Your task to perform on an android device: Clear all items from cart on walmart. Search for alienware aurora on walmart, select the first entry, and add it to the cart. Image 0: 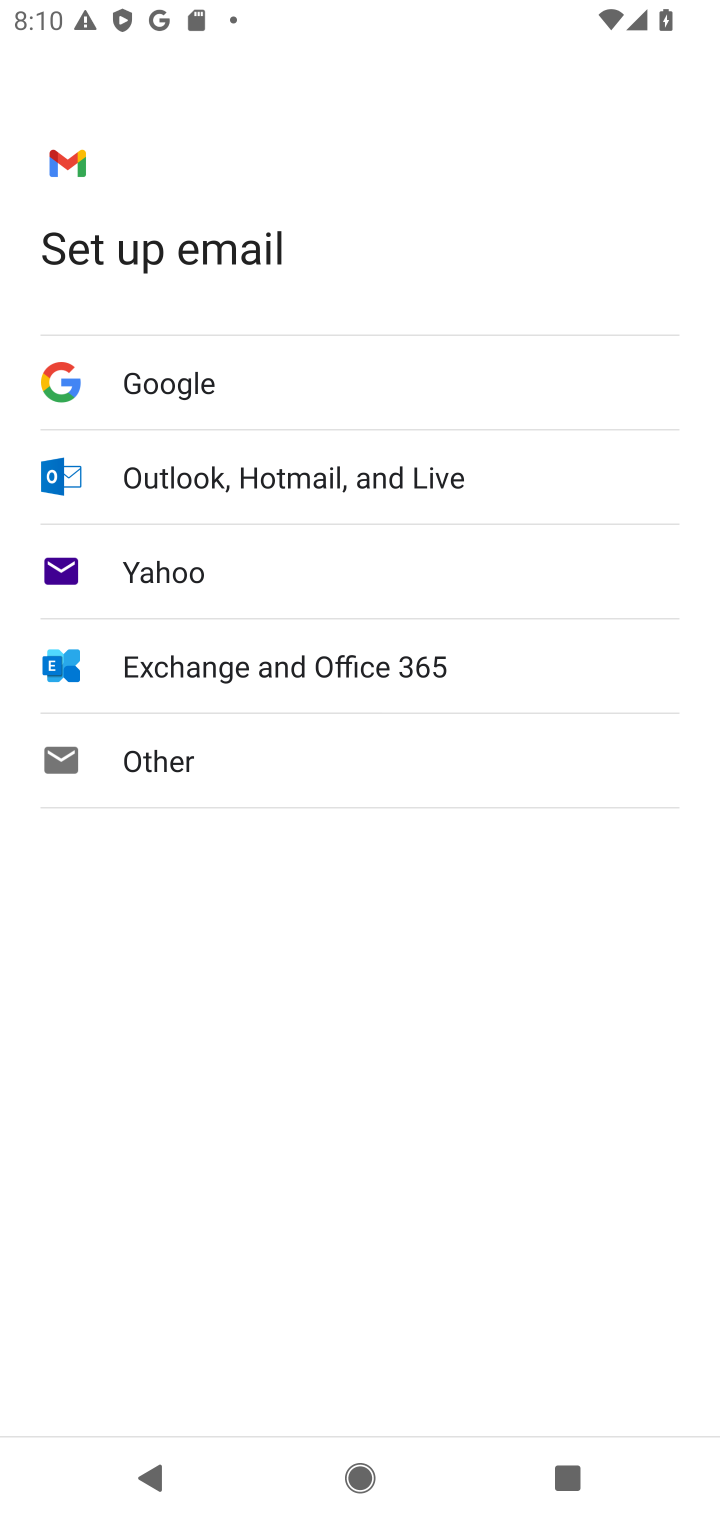
Step 0: press home button
Your task to perform on an android device: Clear all items from cart on walmart. Search for alienware aurora on walmart, select the first entry, and add it to the cart. Image 1: 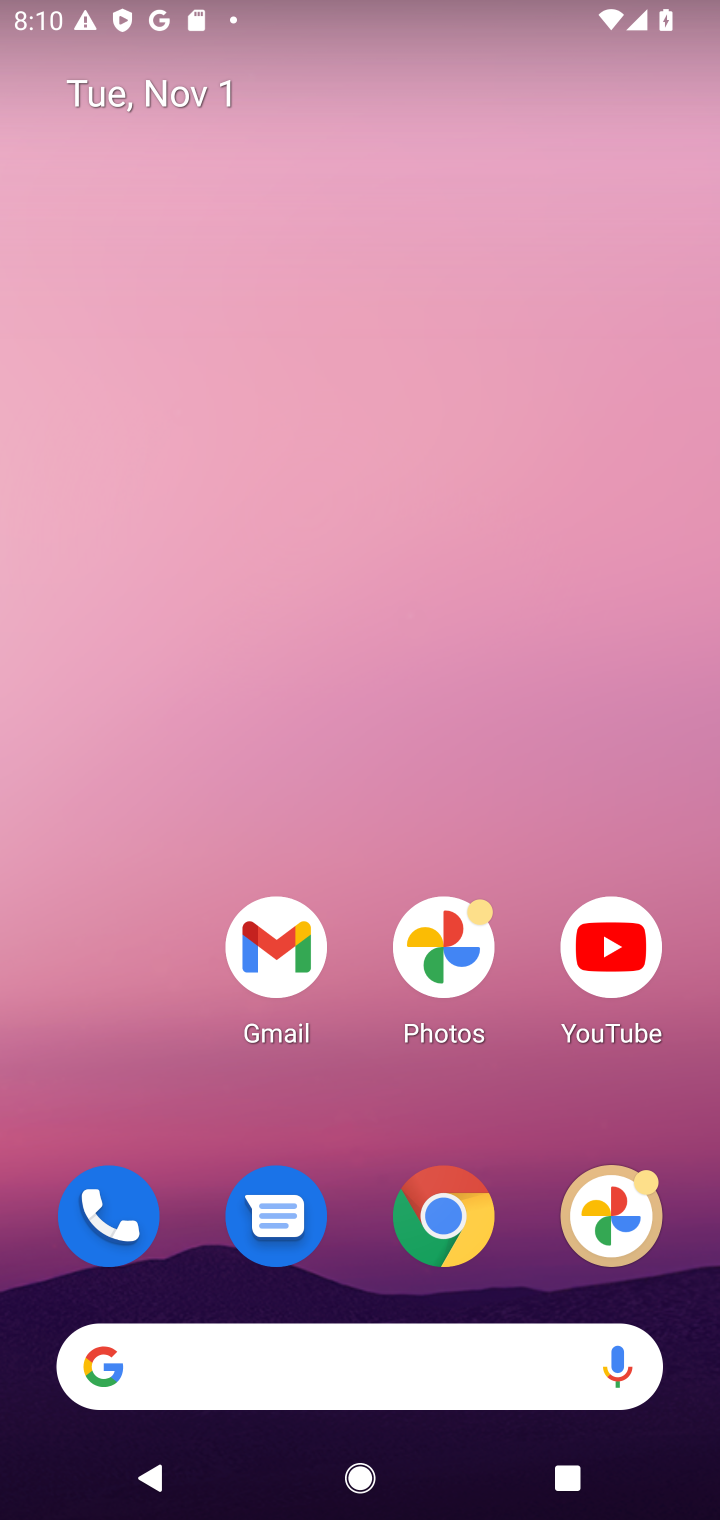
Step 1: click (455, 1212)
Your task to perform on an android device: Clear all items from cart on walmart. Search for alienware aurora on walmart, select the first entry, and add it to the cart. Image 2: 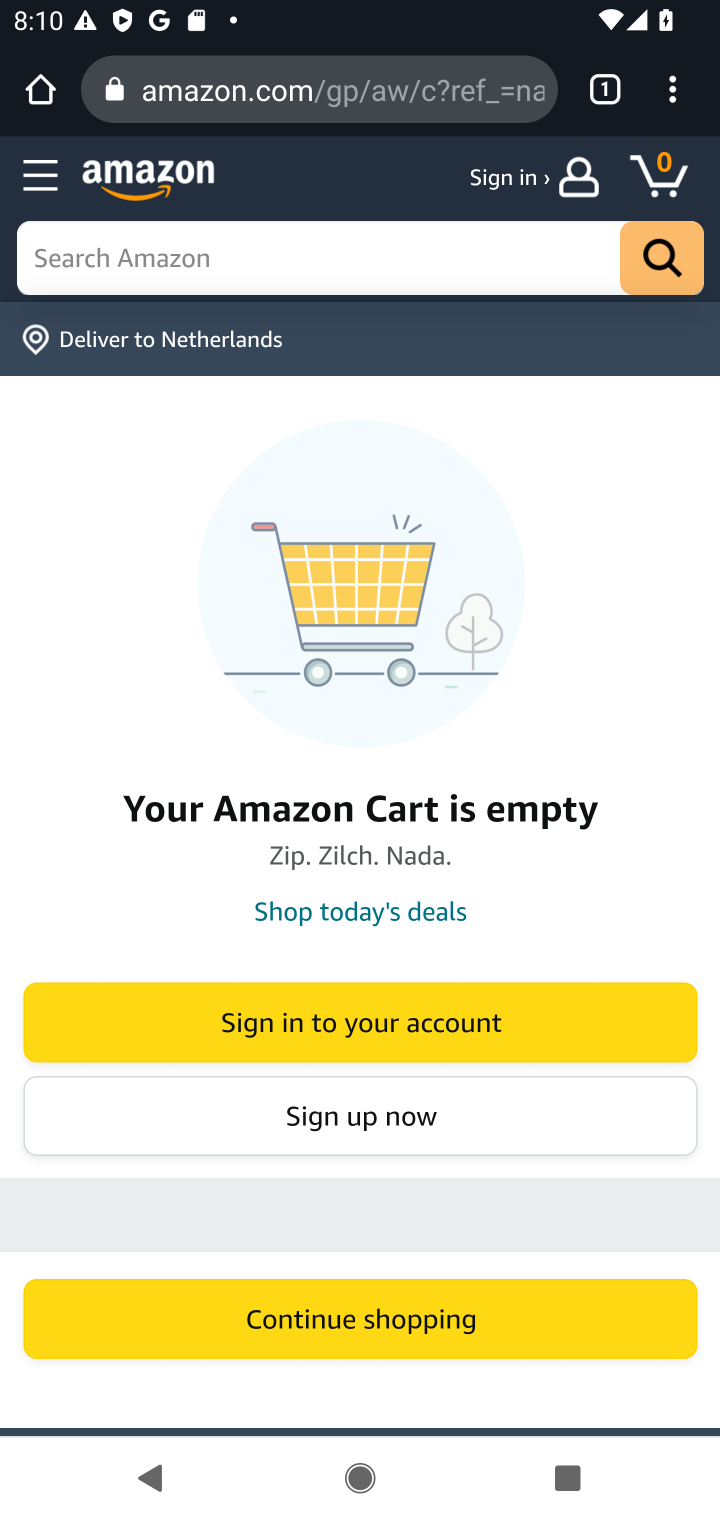
Step 2: click (306, 256)
Your task to perform on an android device: Clear all items from cart on walmart. Search for alienware aurora on walmart, select the first entry, and add it to the cart. Image 3: 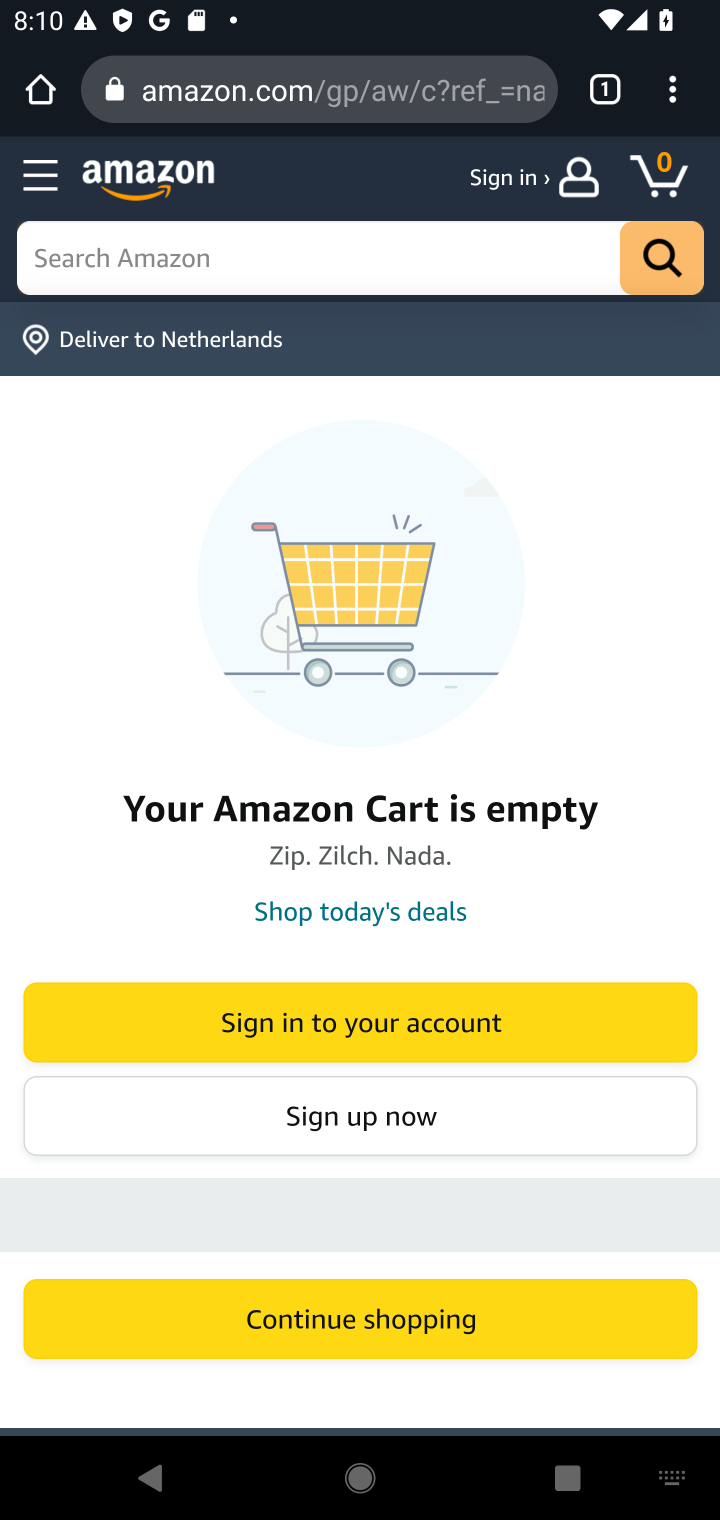
Step 3: click (329, 83)
Your task to perform on an android device: Clear all items from cart on walmart. Search for alienware aurora on walmart, select the first entry, and add it to the cart. Image 4: 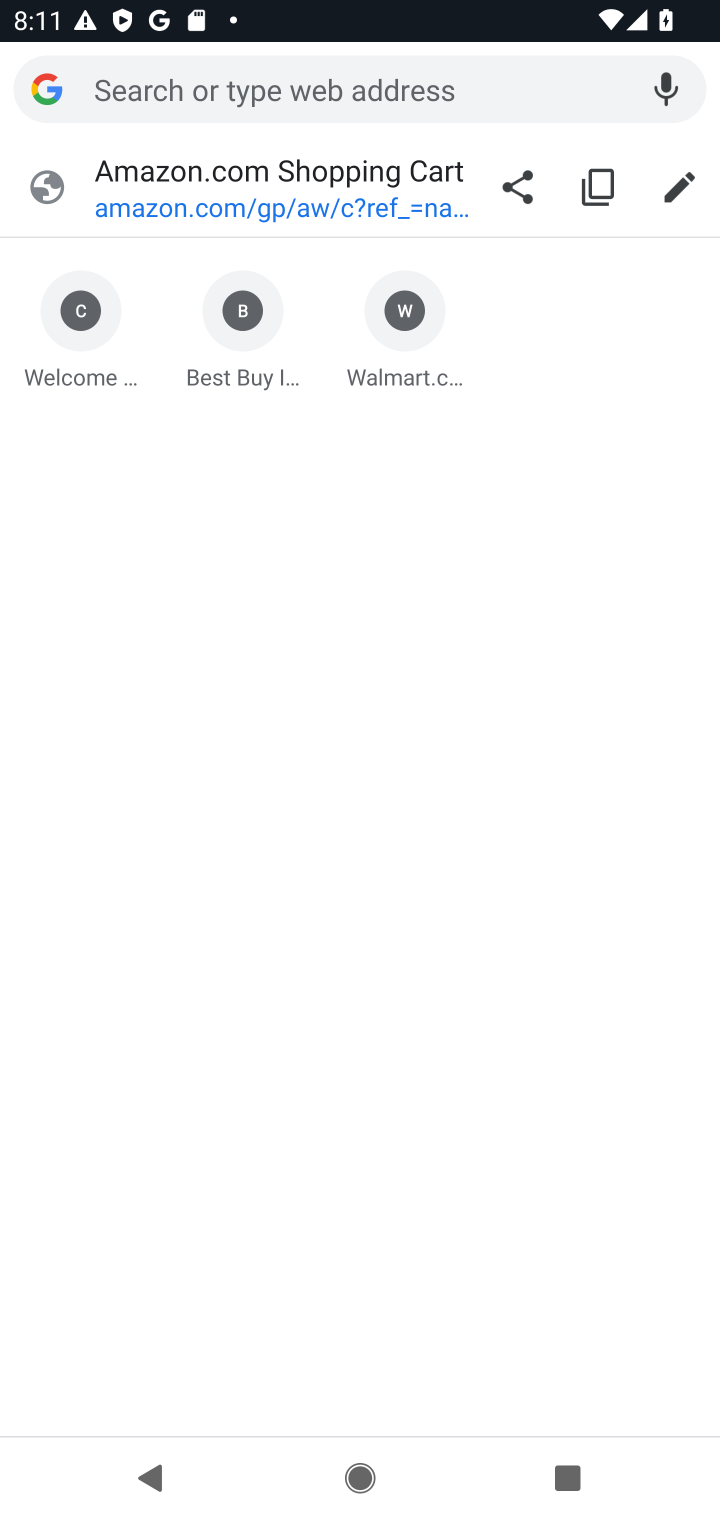
Step 4: type "walmart"
Your task to perform on an android device: Clear all items from cart on walmart. Search for alienware aurora on walmart, select the first entry, and add it to the cart. Image 5: 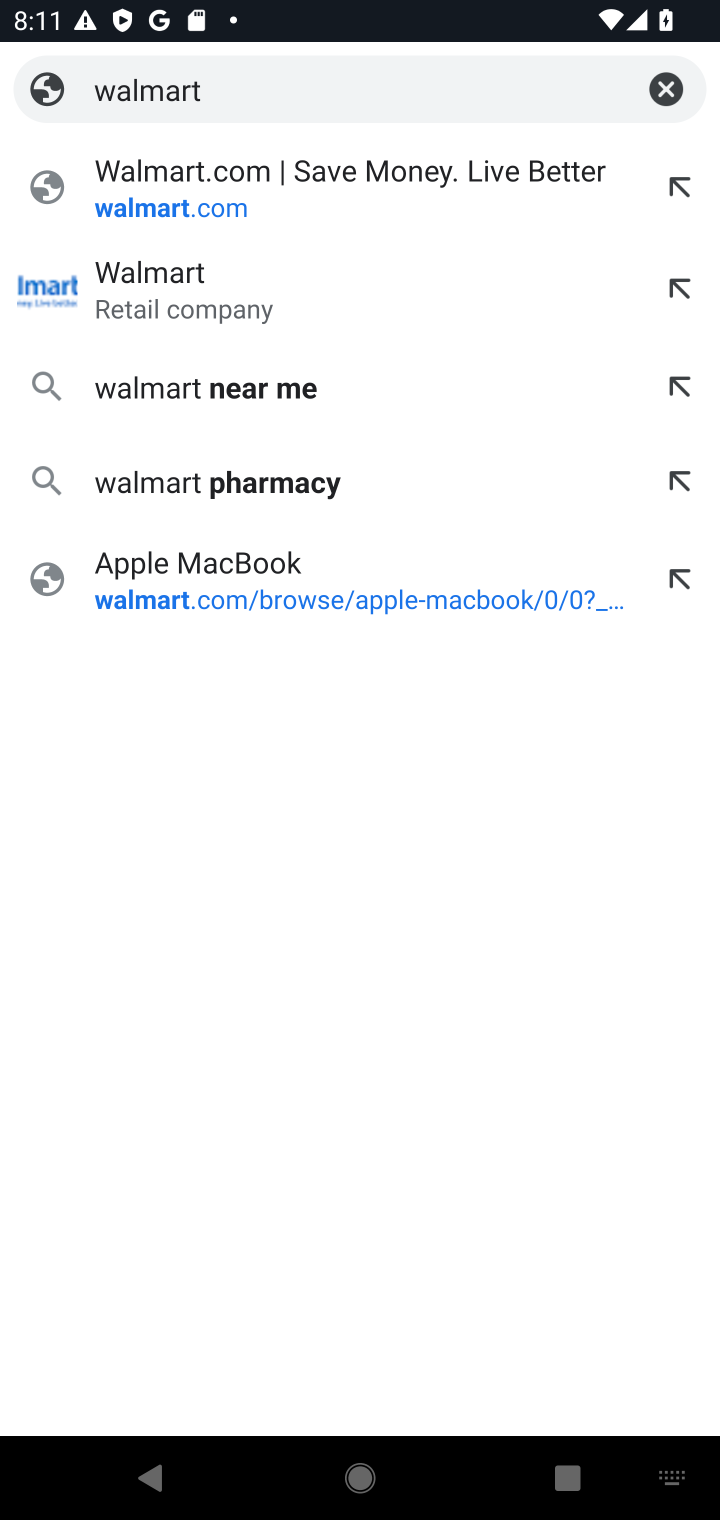
Step 5: click (321, 183)
Your task to perform on an android device: Clear all items from cart on walmart. Search for alienware aurora on walmart, select the first entry, and add it to the cart. Image 6: 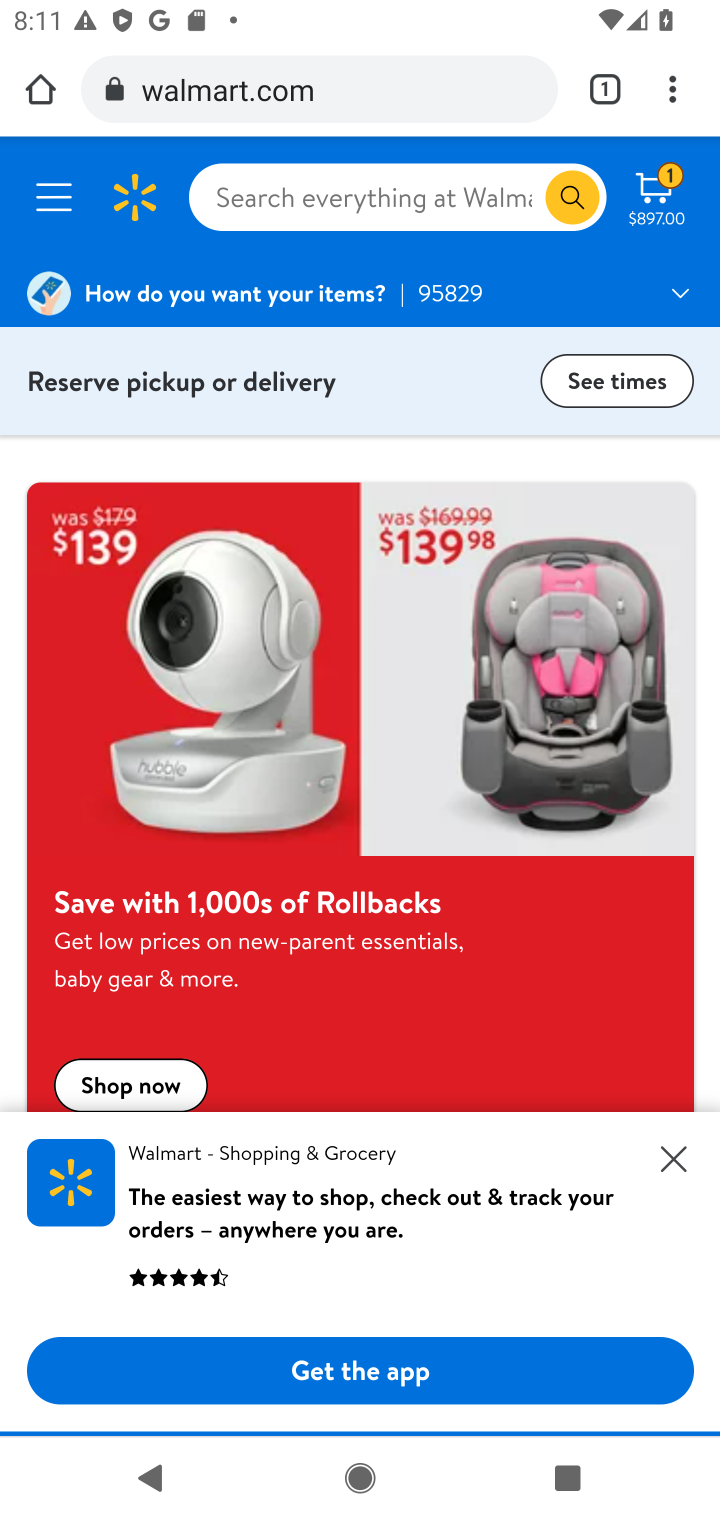
Step 6: click (412, 199)
Your task to perform on an android device: Clear all items from cart on walmart. Search for alienware aurora on walmart, select the first entry, and add it to the cart. Image 7: 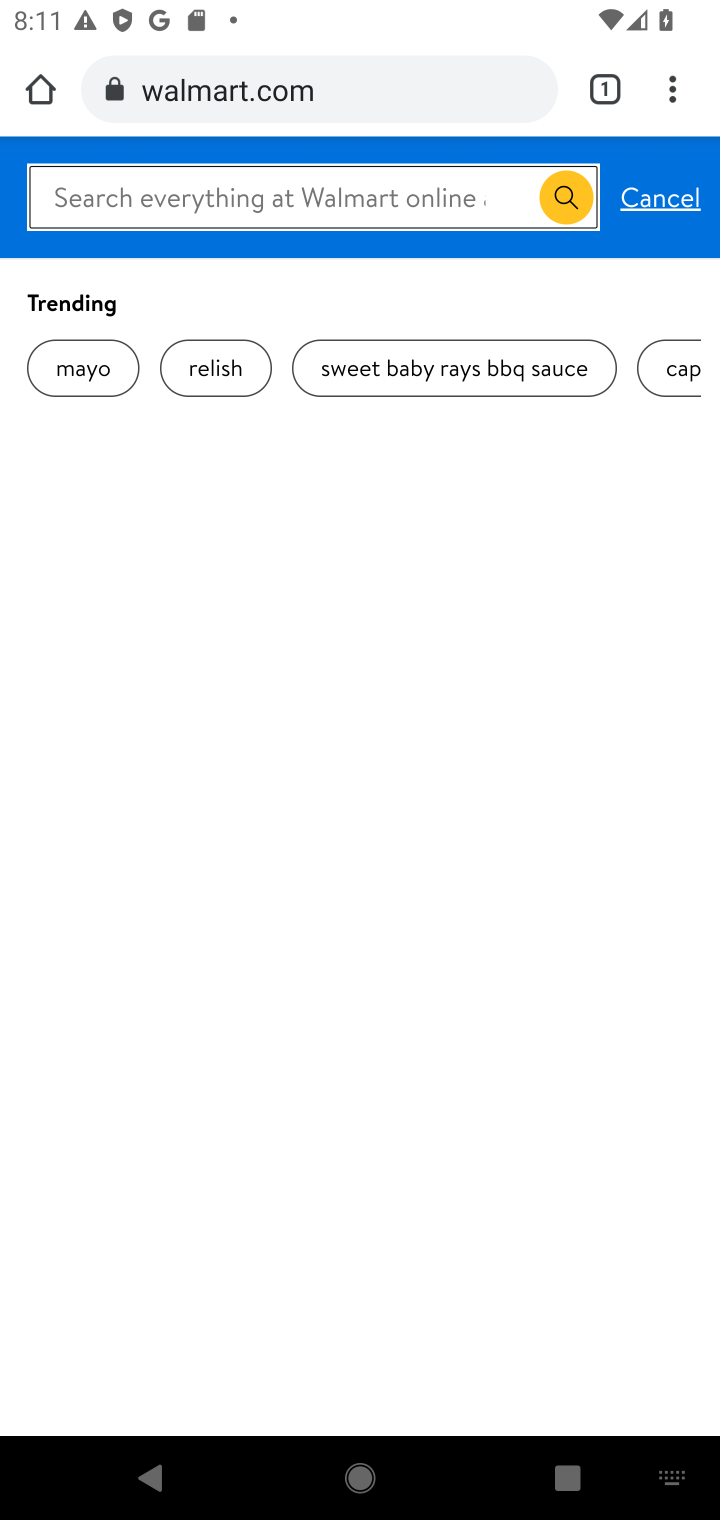
Step 7: type " alienware aurora"
Your task to perform on an android device: Clear all items from cart on walmart. Search for alienware aurora on walmart, select the first entry, and add it to the cart. Image 8: 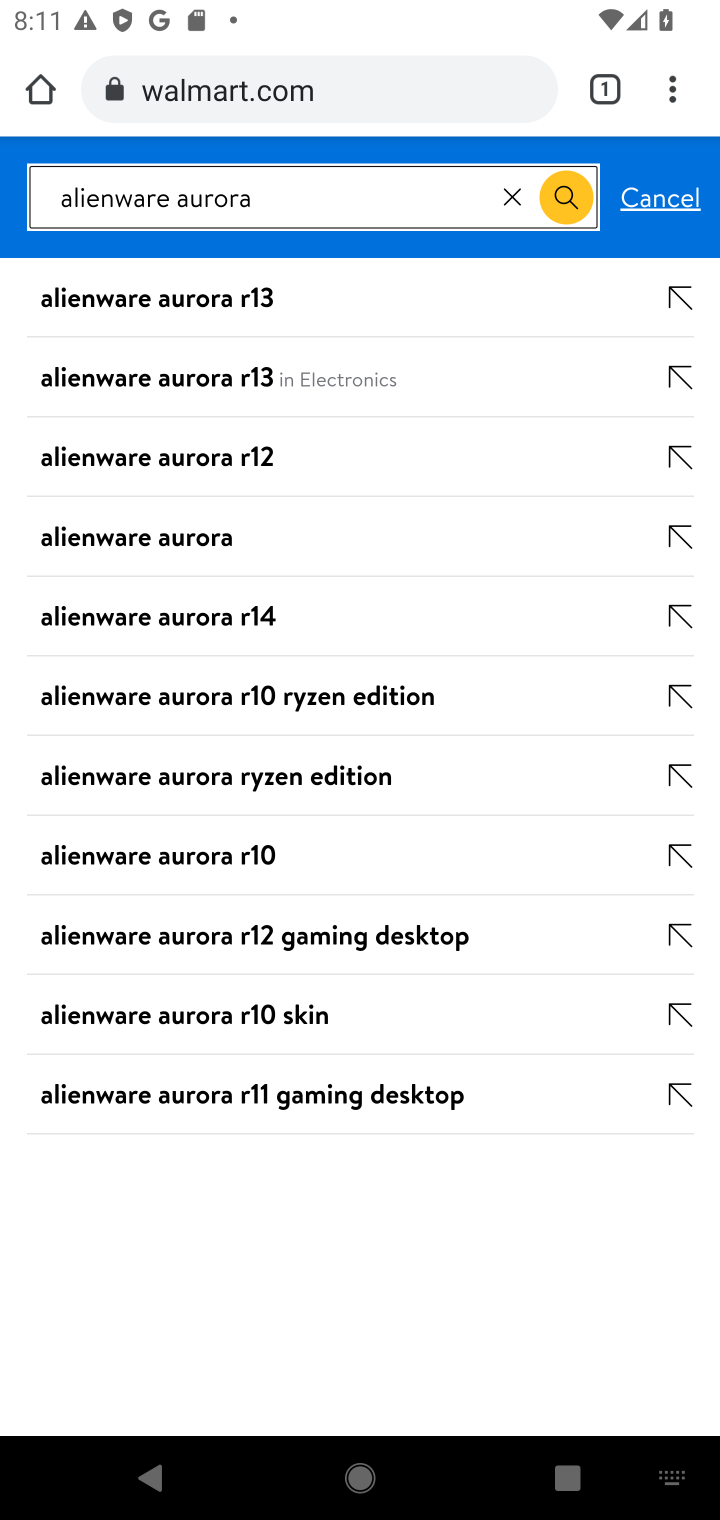
Step 8: click (568, 202)
Your task to perform on an android device: Clear all items from cart on walmart. Search for alienware aurora on walmart, select the first entry, and add it to the cart. Image 9: 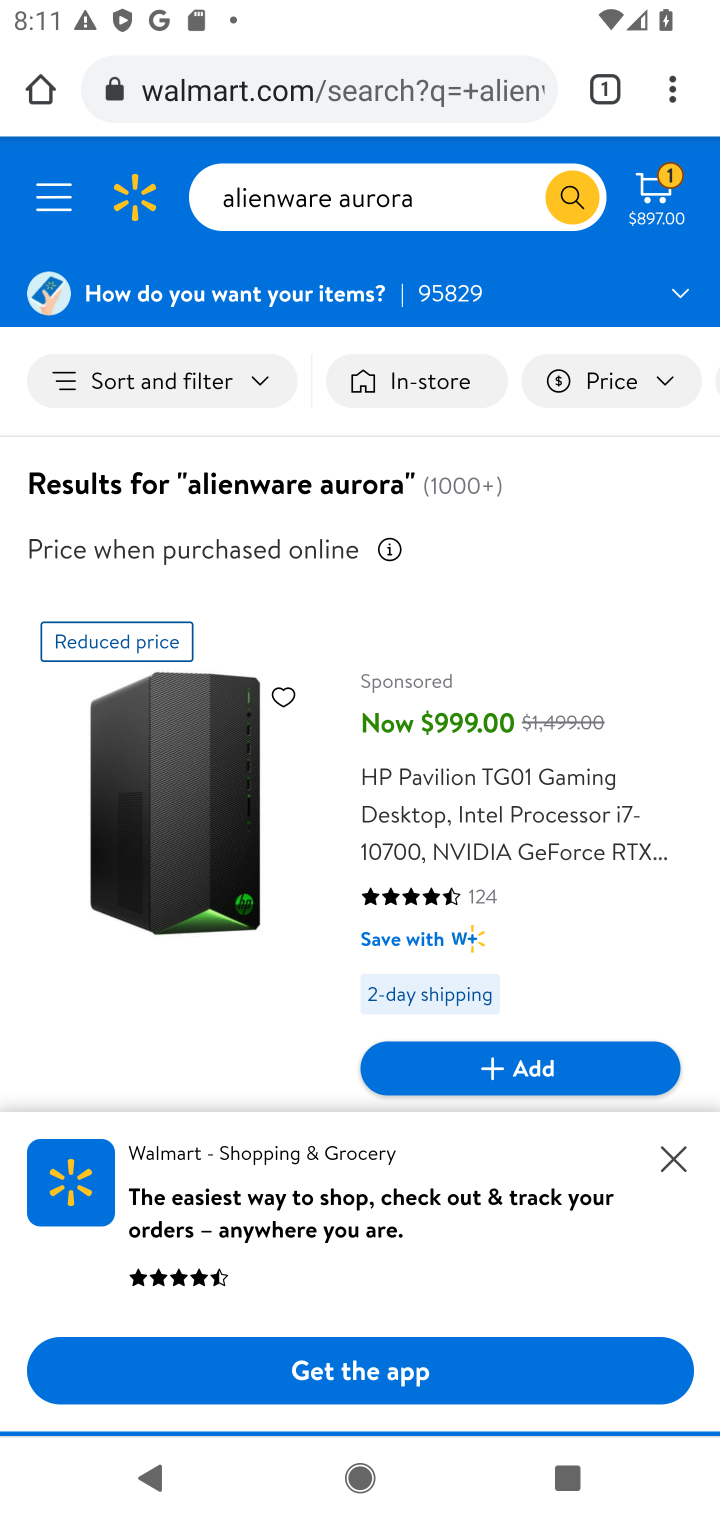
Step 9: click (681, 1151)
Your task to perform on an android device: Clear all items from cart on walmart. Search for alienware aurora on walmart, select the first entry, and add it to the cart. Image 10: 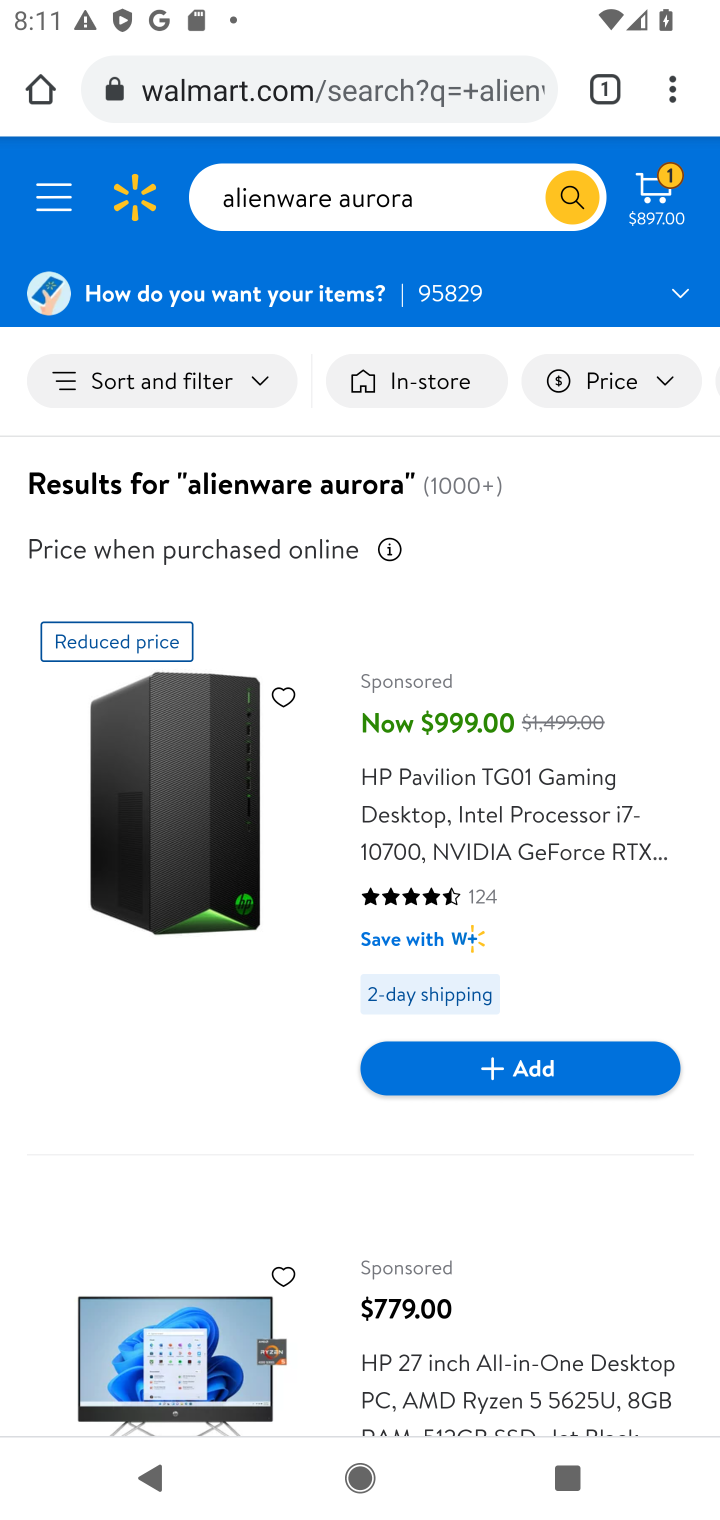
Step 10: click (556, 1071)
Your task to perform on an android device: Clear all items from cart on walmart. Search for alienware aurora on walmart, select the first entry, and add it to the cart. Image 11: 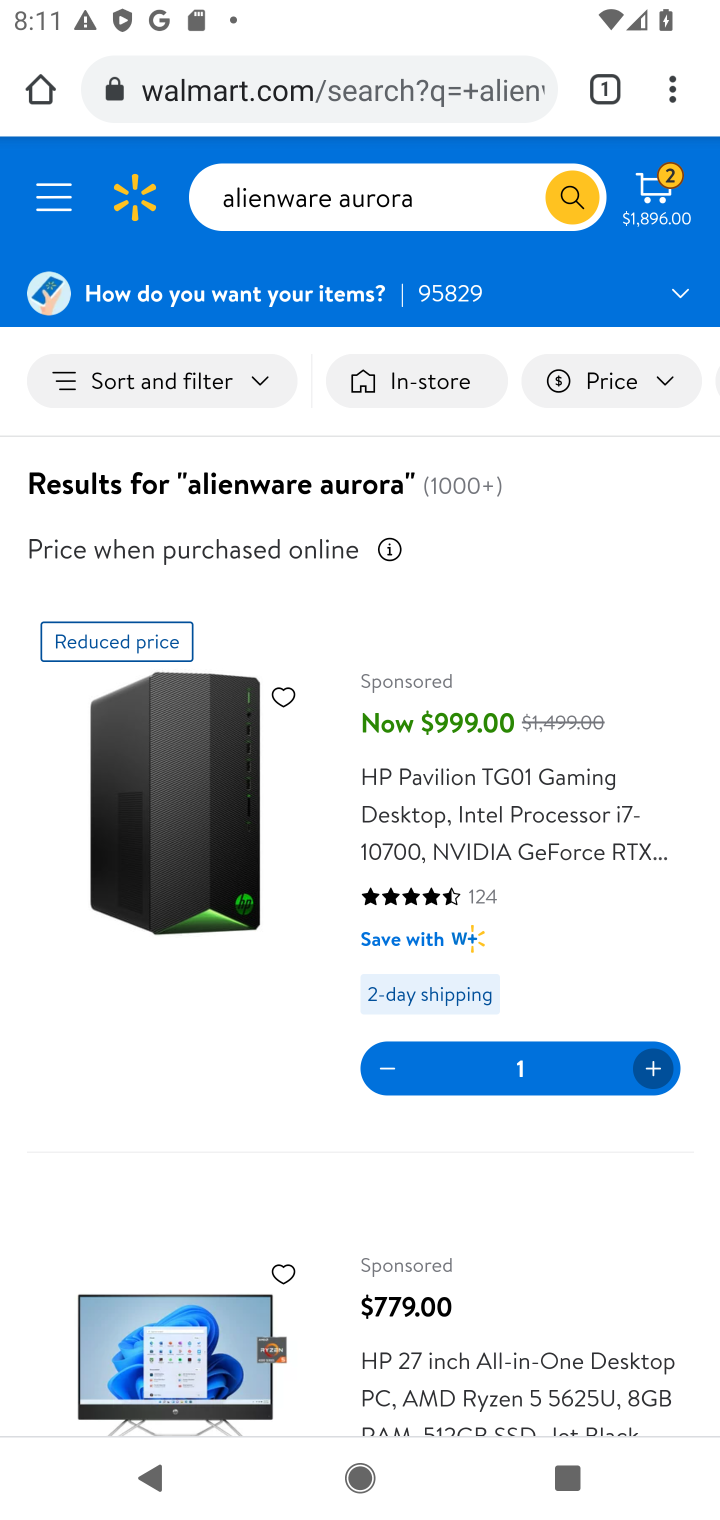
Step 11: task complete